Your task to perform on an android device: Go to Wikipedia Image 0: 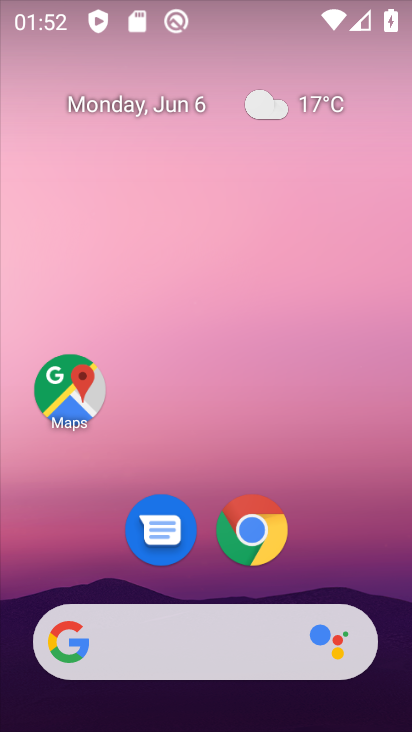
Step 0: drag from (325, 555) to (357, 184)
Your task to perform on an android device: Go to Wikipedia Image 1: 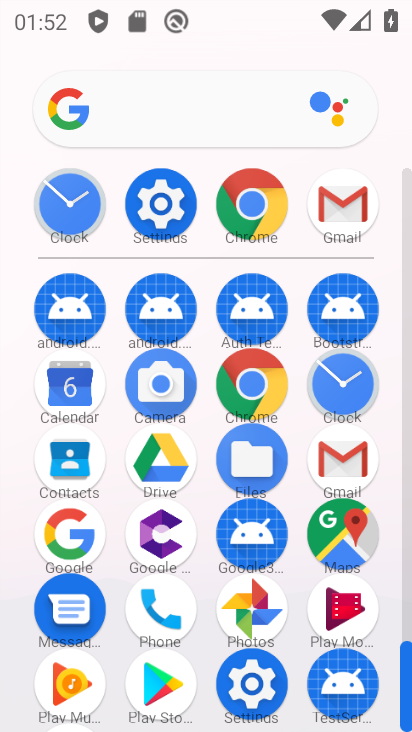
Step 1: click (236, 183)
Your task to perform on an android device: Go to Wikipedia Image 2: 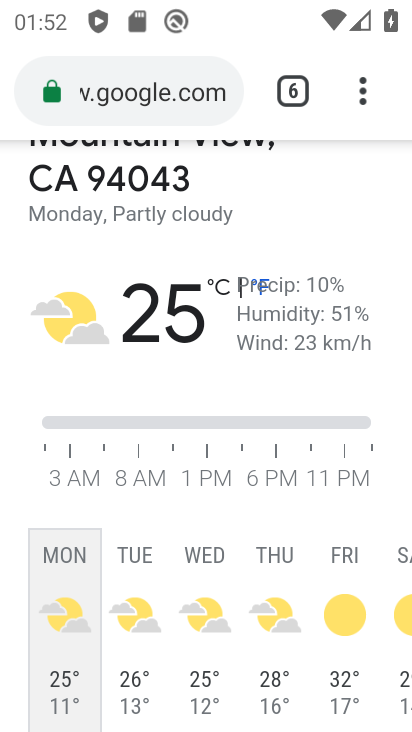
Step 2: click (364, 82)
Your task to perform on an android device: Go to Wikipedia Image 3: 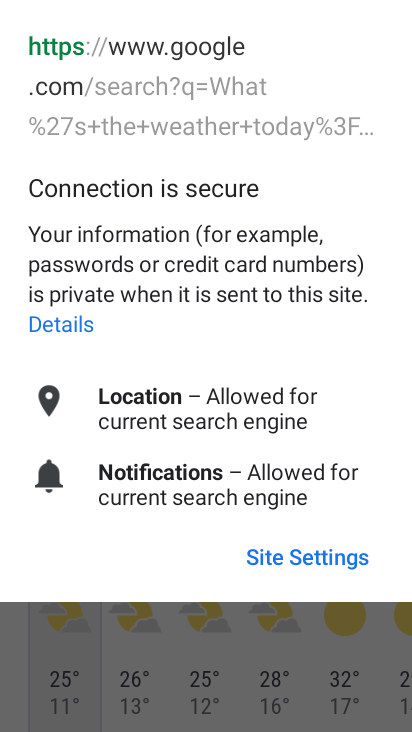
Step 3: press back button
Your task to perform on an android device: Go to Wikipedia Image 4: 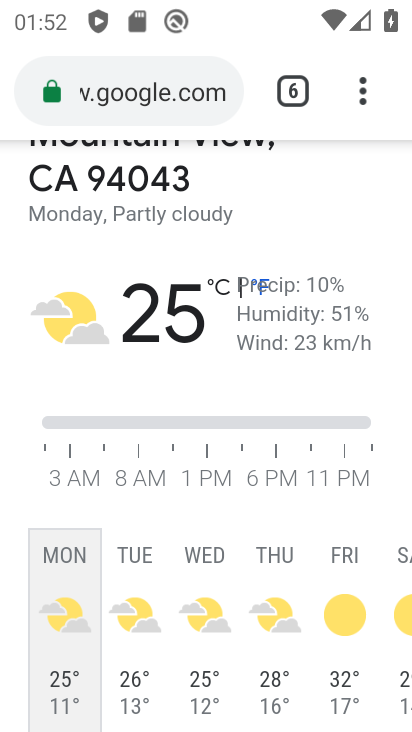
Step 4: click (365, 81)
Your task to perform on an android device: Go to Wikipedia Image 5: 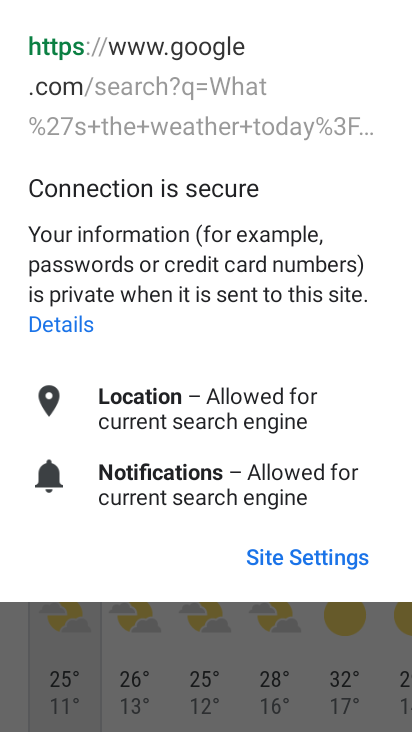
Step 5: press back button
Your task to perform on an android device: Go to Wikipedia Image 6: 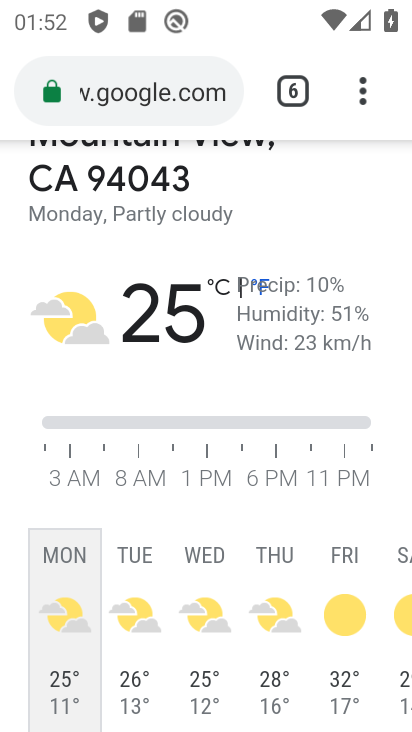
Step 6: click (362, 84)
Your task to perform on an android device: Go to Wikipedia Image 7: 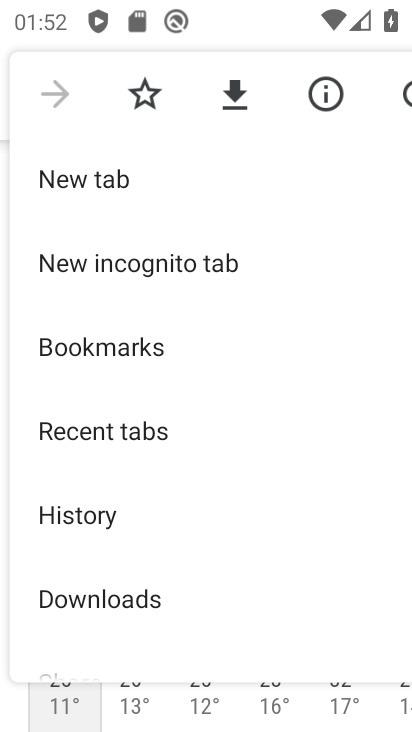
Step 7: drag from (175, 540) to (231, 226)
Your task to perform on an android device: Go to Wikipedia Image 8: 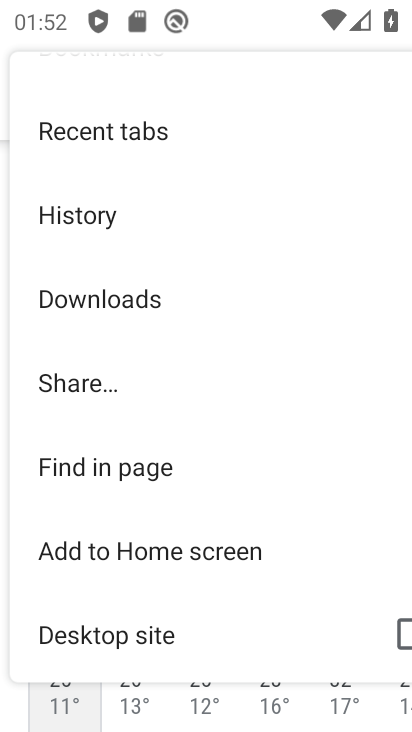
Step 8: drag from (155, 629) to (211, 622)
Your task to perform on an android device: Go to Wikipedia Image 9: 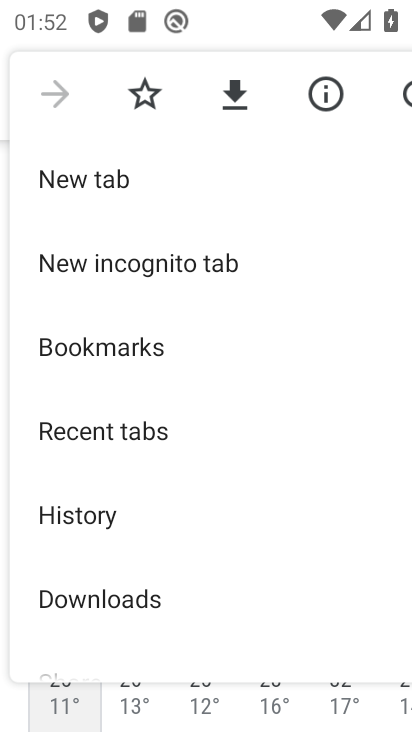
Step 9: click (108, 158)
Your task to perform on an android device: Go to Wikipedia Image 10: 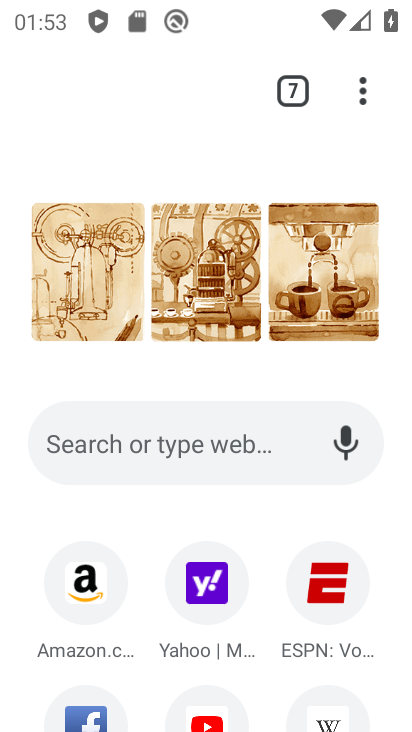
Step 10: drag from (275, 595) to (283, 396)
Your task to perform on an android device: Go to Wikipedia Image 11: 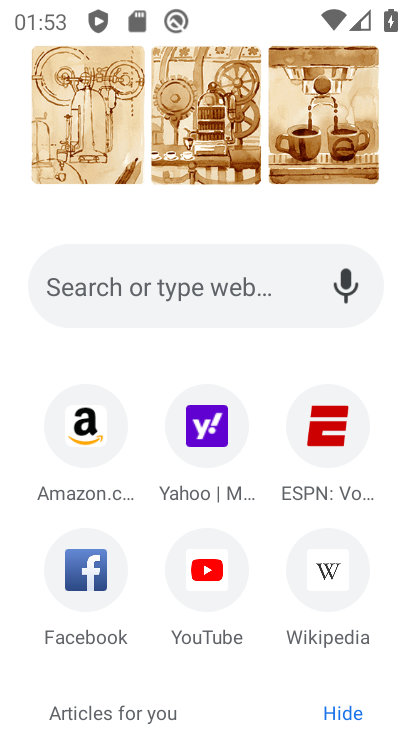
Step 11: click (320, 542)
Your task to perform on an android device: Go to Wikipedia Image 12: 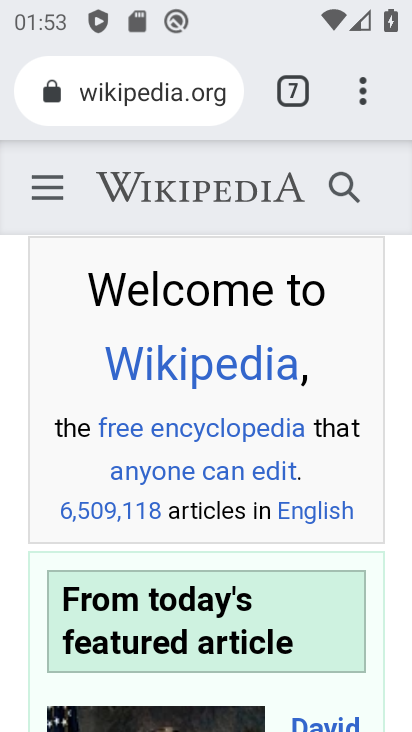
Step 12: task complete